Your task to perform on an android device: Show me popular games on the Play Store Image 0: 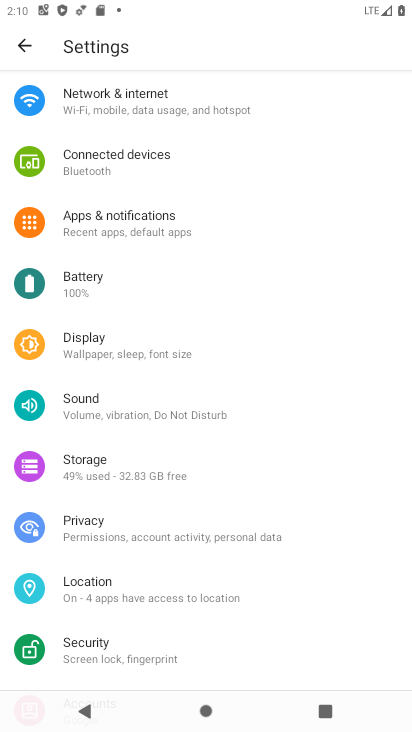
Step 0: press home button
Your task to perform on an android device: Show me popular games on the Play Store Image 1: 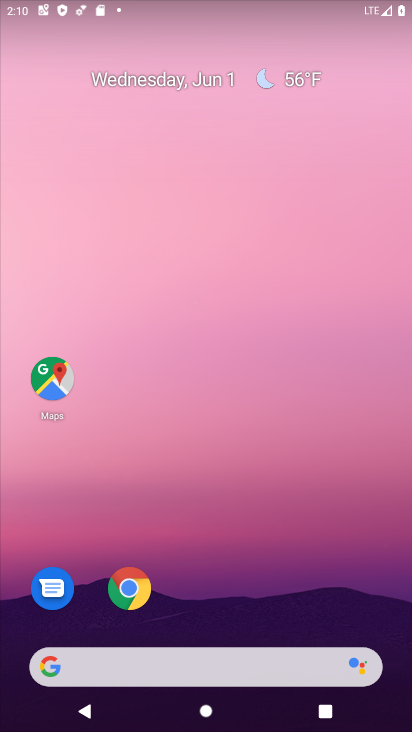
Step 1: drag from (282, 561) to (46, 18)
Your task to perform on an android device: Show me popular games on the Play Store Image 2: 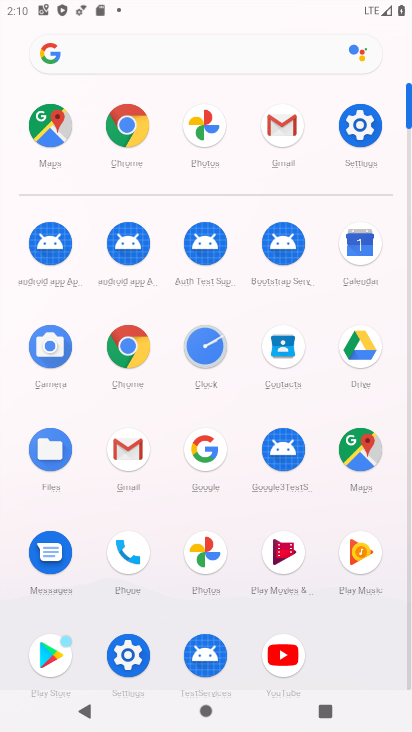
Step 2: click (49, 660)
Your task to perform on an android device: Show me popular games on the Play Store Image 3: 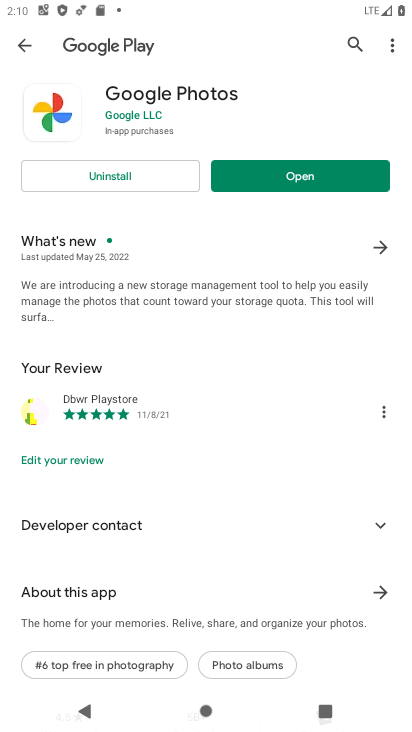
Step 3: click (27, 36)
Your task to perform on an android device: Show me popular games on the Play Store Image 4: 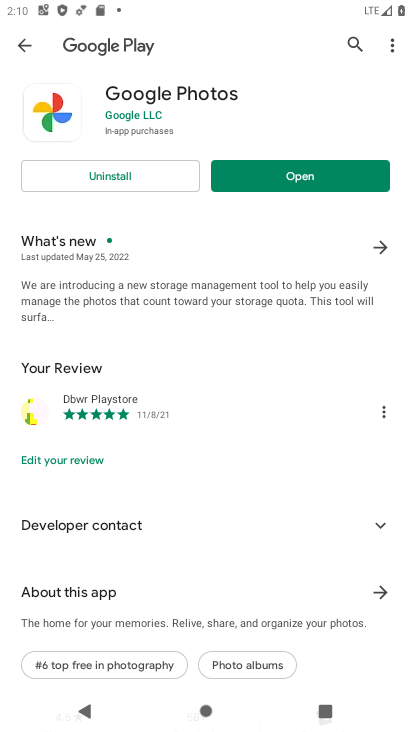
Step 4: click (26, 42)
Your task to perform on an android device: Show me popular games on the Play Store Image 5: 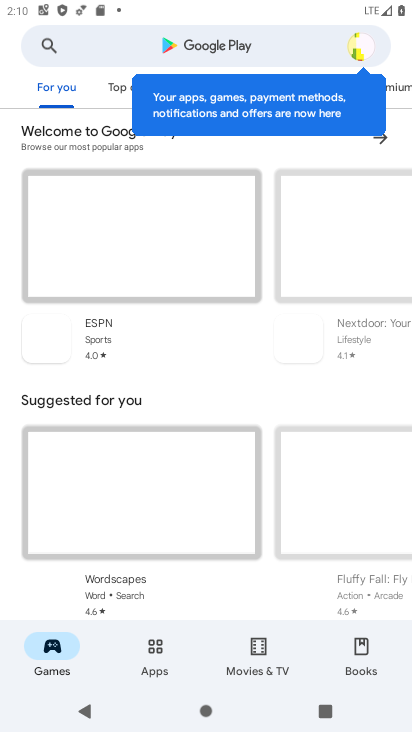
Step 5: click (152, 640)
Your task to perform on an android device: Show me popular games on the Play Store Image 6: 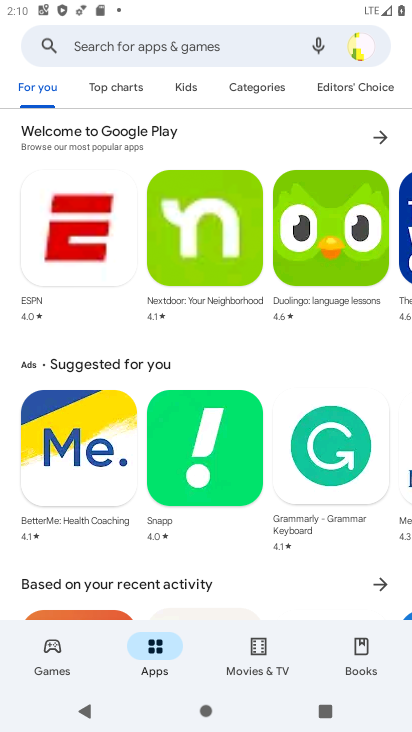
Step 6: click (46, 658)
Your task to perform on an android device: Show me popular games on the Play Store Image 7: 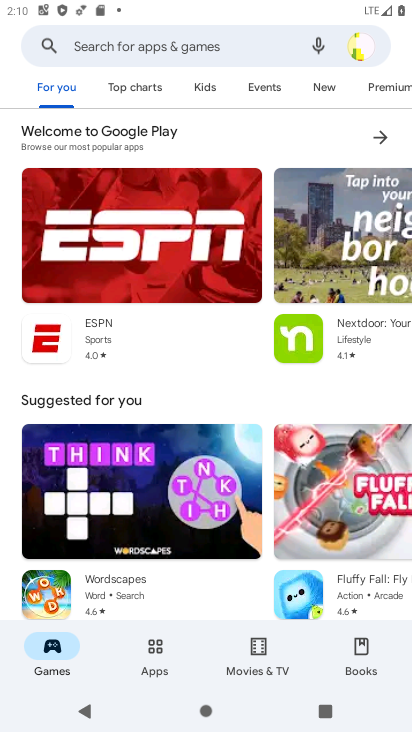
Step 7: click (141, 92)
Your task to perform on an android device: Show me popular games on the Play Store Image 8: 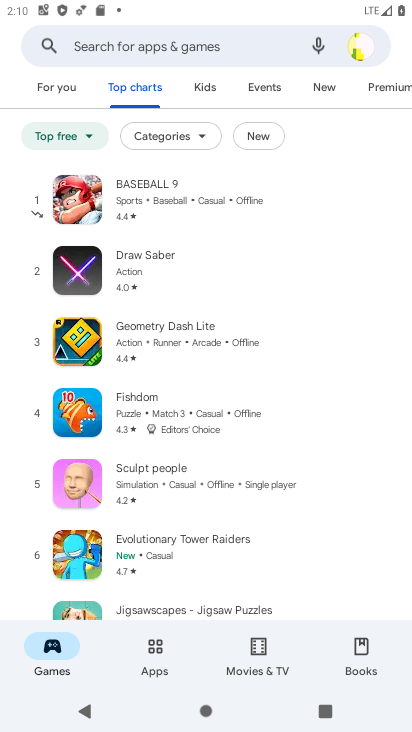
Step 8: task complete